Your task to perform on an android device: change the clock style Image 0: 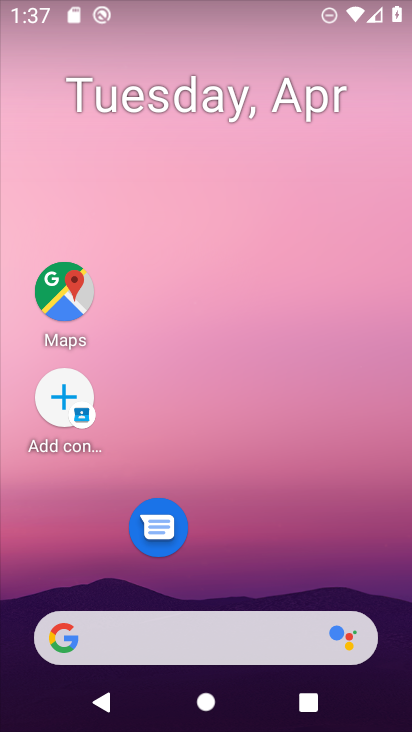
Step 0: drag from (258, 554) to (238, 124)
Your task to perform on an android device: change the clock style Image 1: 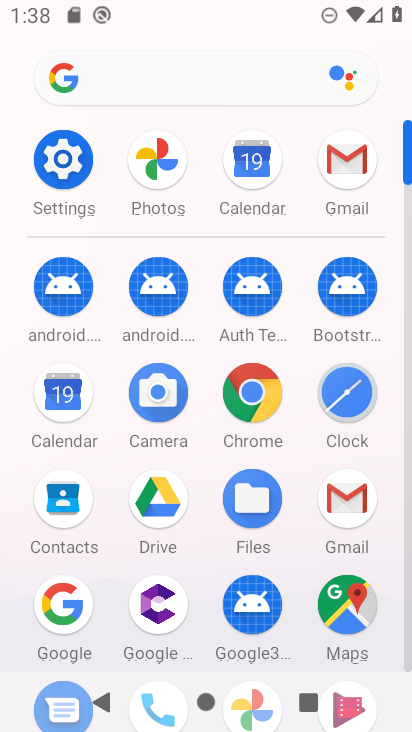
Step 1: click (347, 391)
Your task to perform on an android device: change the clock style Image 2: 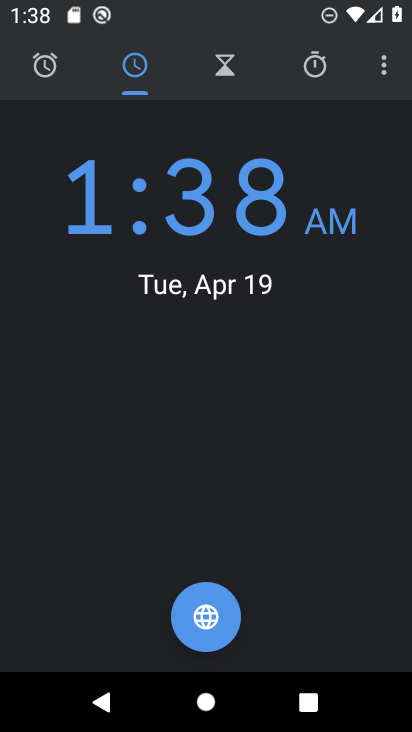
Step 2: click (390, 69)
Your task to perform on an android device: change the clock style Image 3: 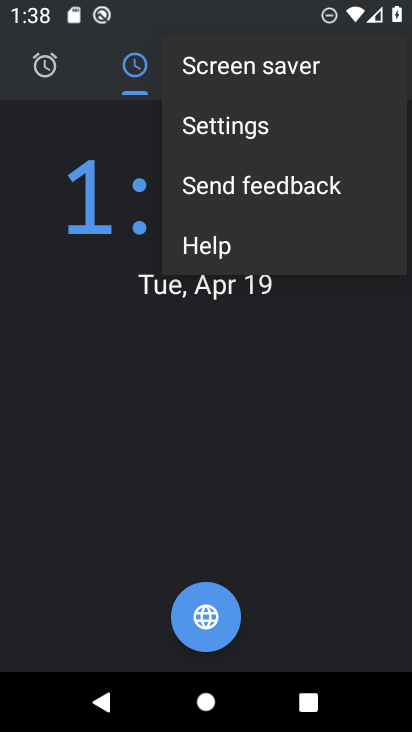
Step 3: click (268, 128)
Your task to perform on an android device: change the clock style Image 4: 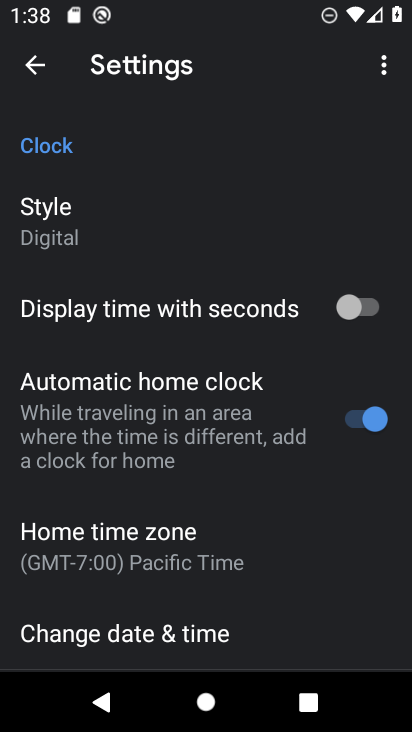
Step 4: click (119, 238)
Your task to perform on an android device: change the clock style Image 5: 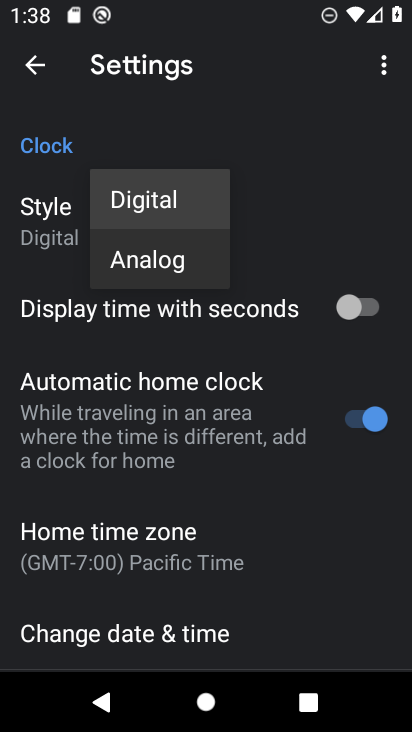
Step 5: click (152, 264)
Your task to perform on an android device: change the clock style Image 6: 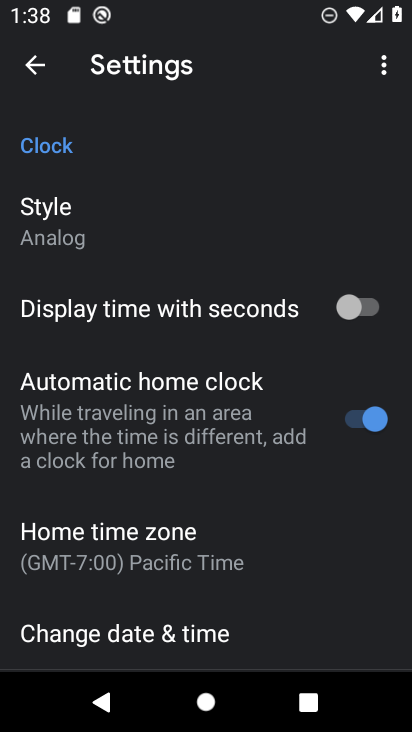
Step 6: task complete